Your task to perform on an android device: turn off notifications settings in the gmail app Image 0: 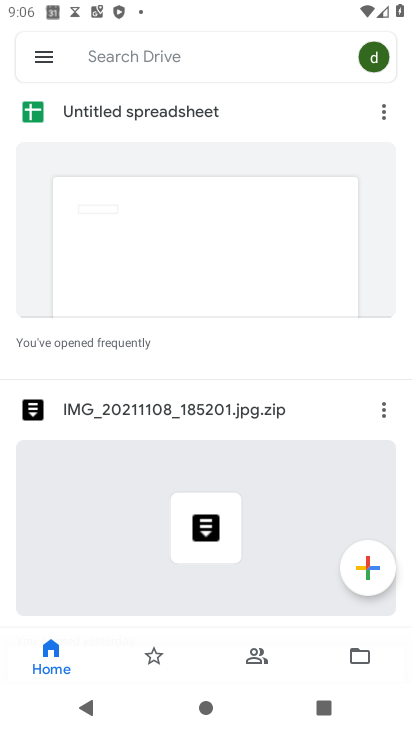
Step 0: press home button
Your task to perform on an android device: turn off notifications settings in the gmail app Image 1: 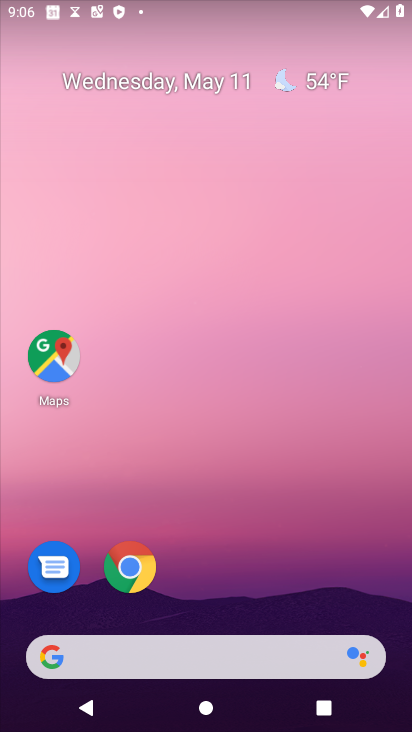
Step 1: drag from (196, 589) to (277, 24)
Your task to perform on an android device: turn off notifications settings in the gmail app Image 2: 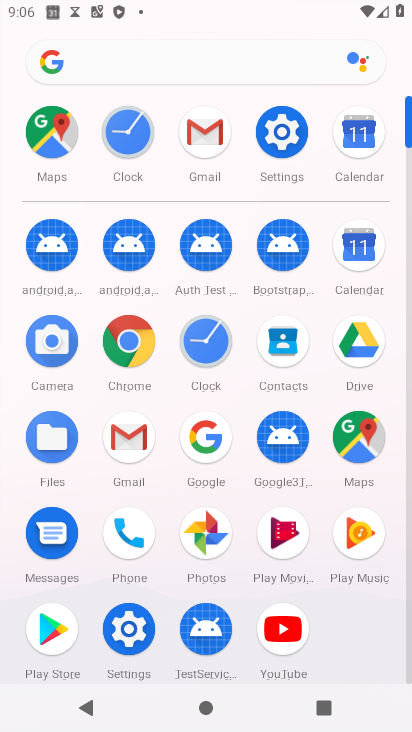
Step 2: click (126, 432)
Your task to perform on an android device: turn off notifications settings in the gmail app Image 3: 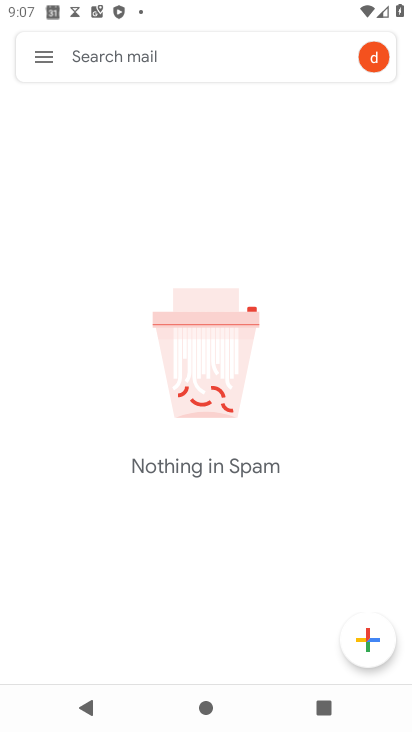
Step 3: click (41, 53)
Your task to perform on an android device: turn off notifications settings in the gmail app Image 4: 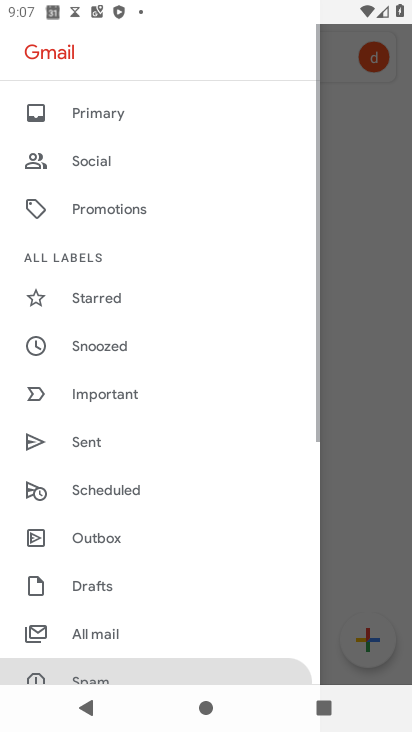
Step 4: drag from (89, 614) to (238, 67)
Your task to perform on an android device: turn off notifications settings in the gmail app Image 5: 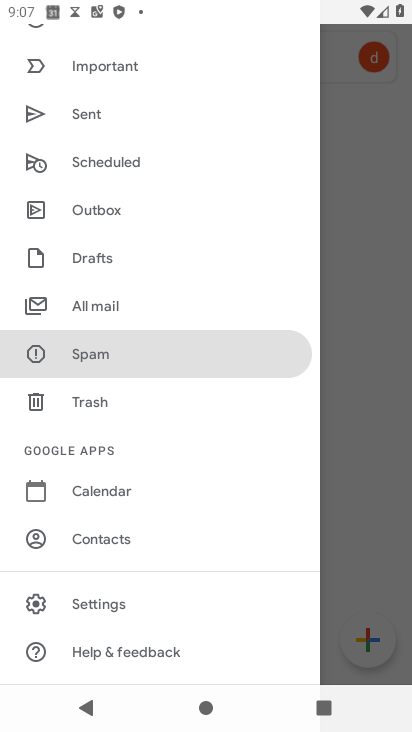
Step 5: click (113, 613)
Your task to perform on an android device: turn off notifications settings in the gmail app Image 6: 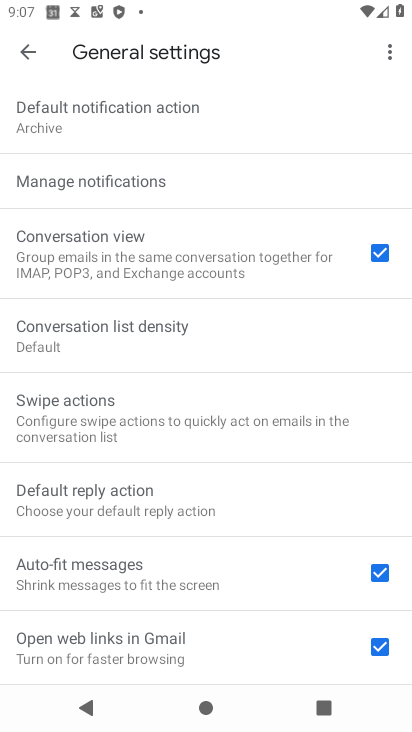
Step 6: click (142, 175)
Your task to perform on an android device: turn off notifications settings in the gmail app Image 7: 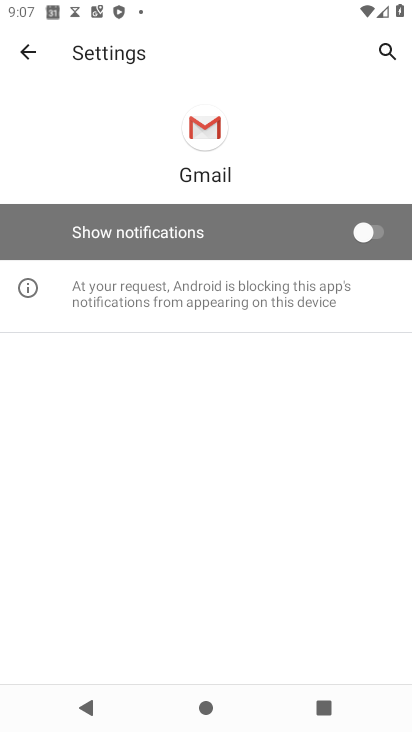
Step 7: task complete